Your task to perform on an android device: turn on javascript in the chrome app Image 0: 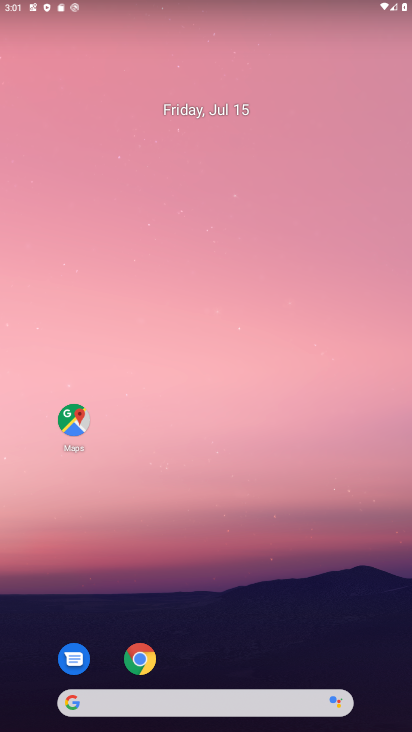
Step 0: click (142, 662)
Your task to perform on an android device: turn on javascript in the chrome app Image 1: 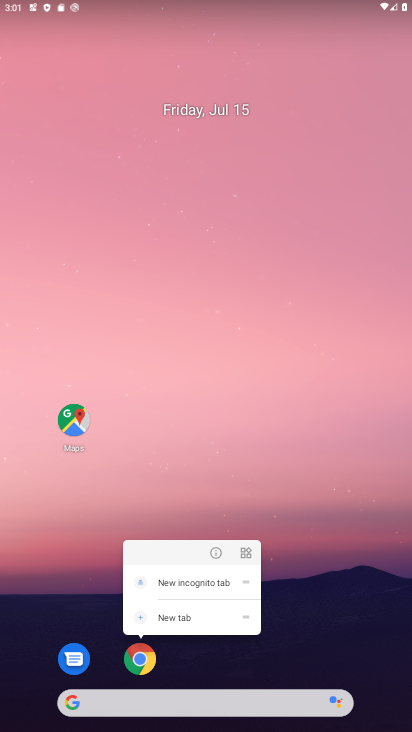
Step 1: click (142, 662)
Your task to perform on an android device: turn on javascript in the chrome app Image 2: 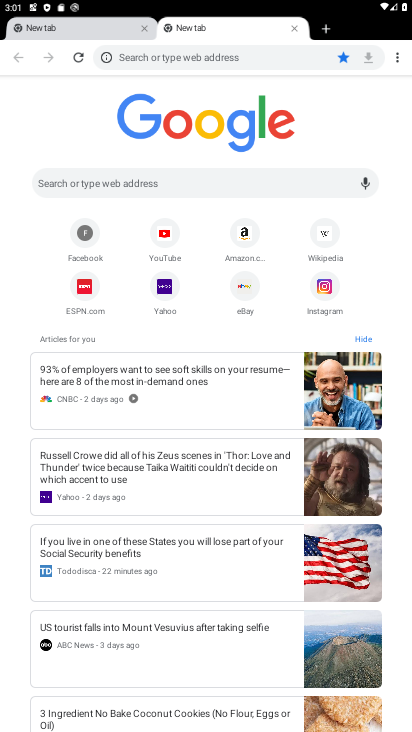
Step 2: click (395, 53)
Your task to perform on an android device: turn on javascript in the chrome app Image 3: 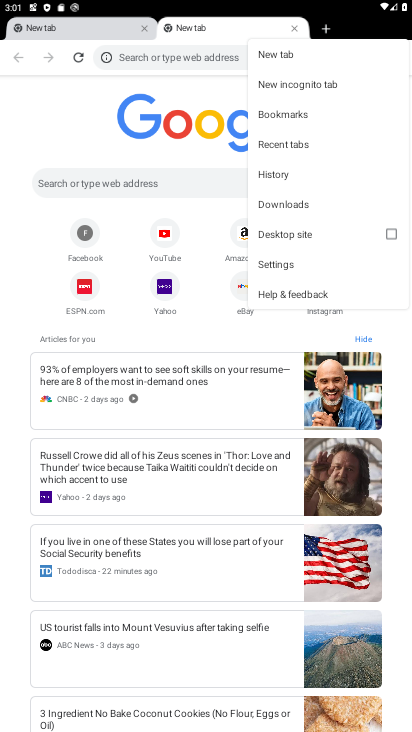
Step 3: click (291, 257)
Your task to perform on an android device: turn on javascript in the chrome app Image 4: 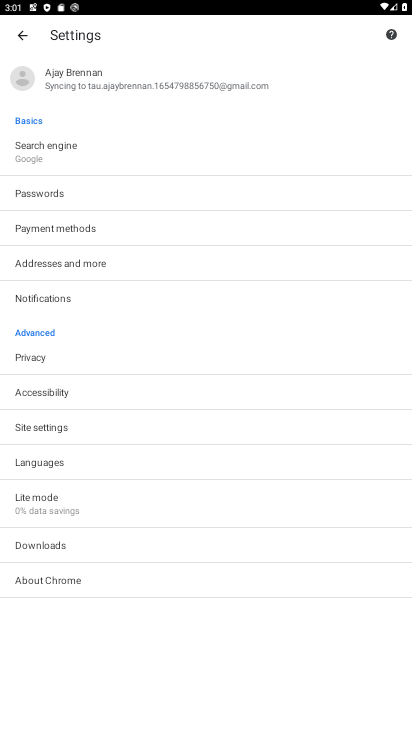
Step 4: click (50, 434)
Your task to perform on an android device: turn on javascript in the chrome app Image 5: 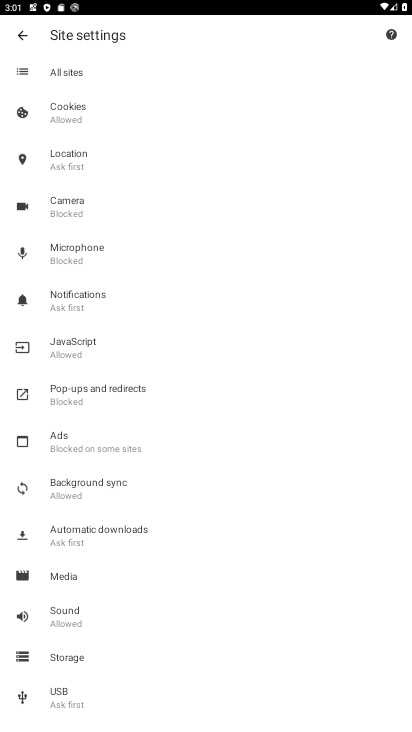
Step 5: click (93, 347)
Your task to perform on an android device: turn on javascript in the chrome app Image 6: 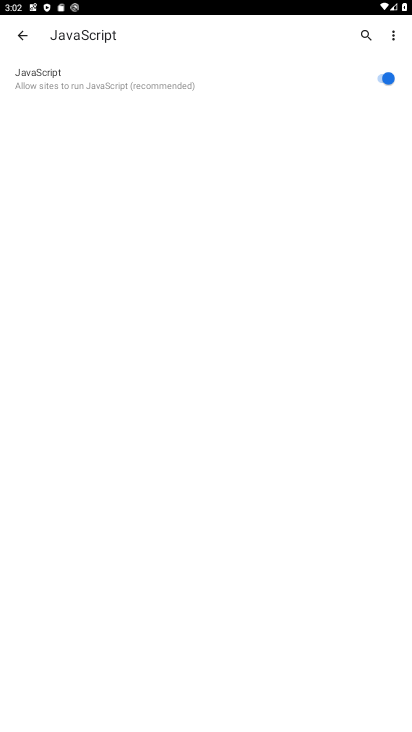
Step 6: task complete